Your task to perform on an android device: Play the last video I watched on Youtube Image 0: 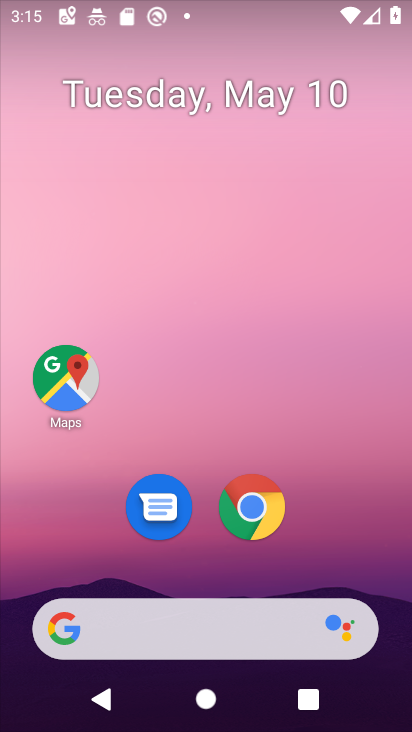
Step 0: drag from (206, 467) to (238, 245)
Your task to perform on an android device: Play the last video I watched on Youtube Image 1: 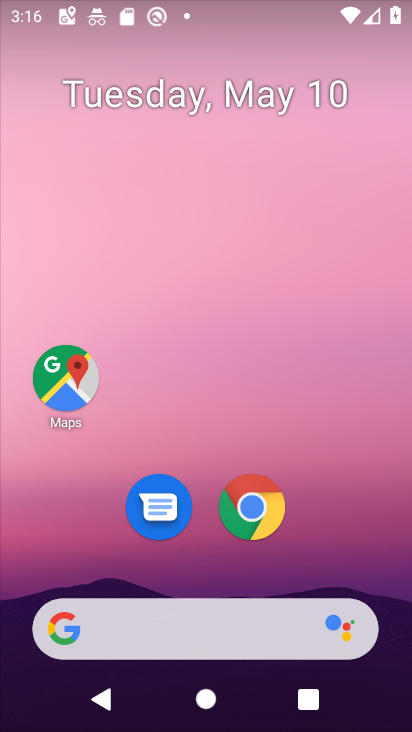
Step 1: drag from (211, 586) to (260, 142)
Your task to perform on an android device: Play the last video I watched on Youtube Image 2: 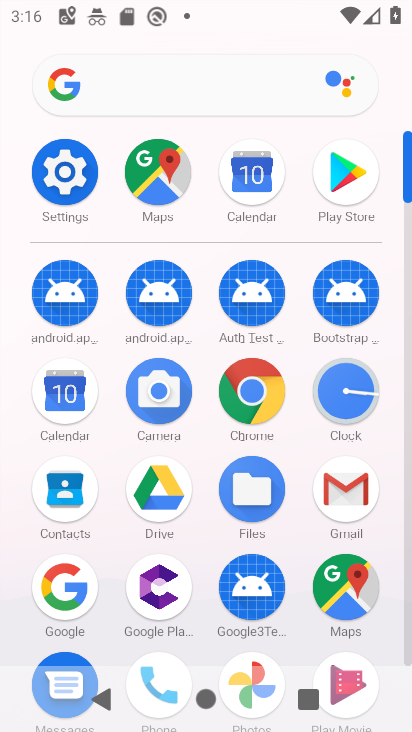
Step 2: drag from (294, 546) to (309, 236)
Your task to perform on an android device: Play the last video I watched on Youtube Image 3: 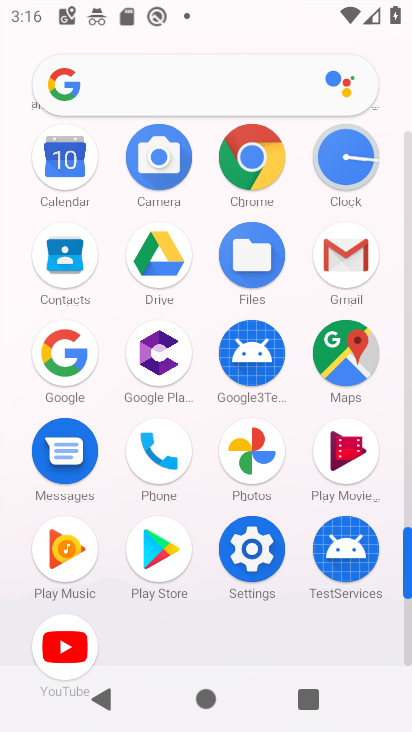
Step 3: click (61, 648)
Your task to perform on an android device: Play the last video I watched on Youtube Image 4: 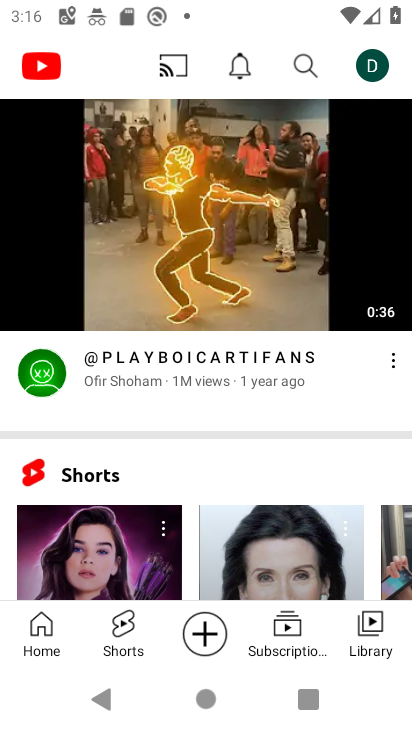
Step 4: click (299, 70)
Your task to perform on an android device: Play the last video I watched on Youtube Image 5: 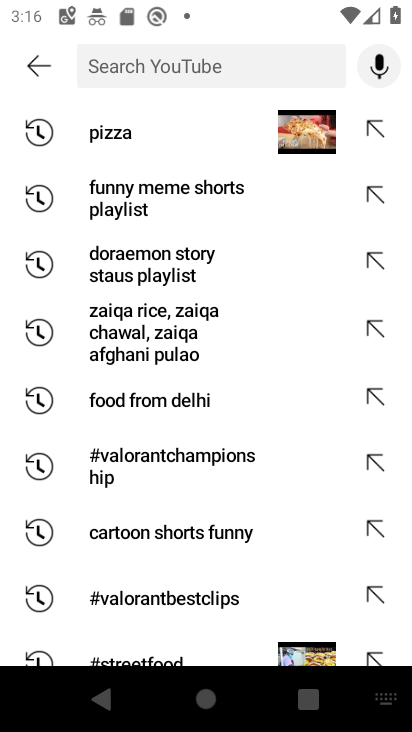
Step 5: click (109, 705)
Your task to perform on an android device: Play the last video I watched on Youtube Image 6: 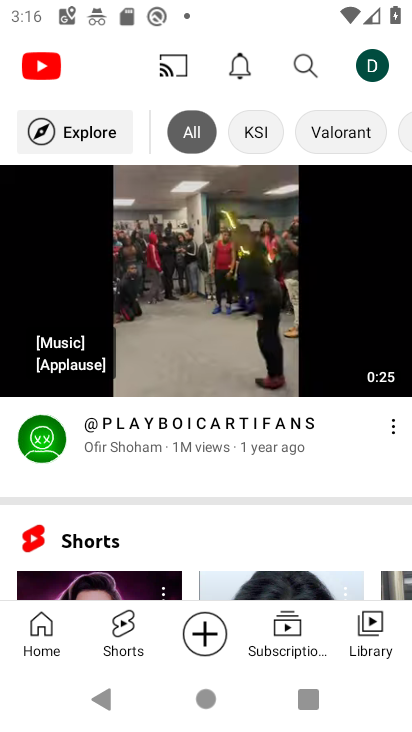
Step 6: click (371, 622)
Your task to perform on an android device: Play the last video I watched on Youtube Image 7: 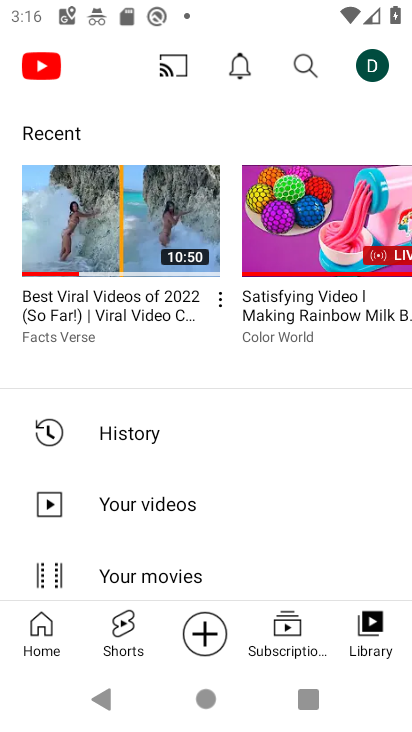
Step 7: click (115, 445)
Your task to perform on an android device: Play the last video I watched on Youtube Image 8: 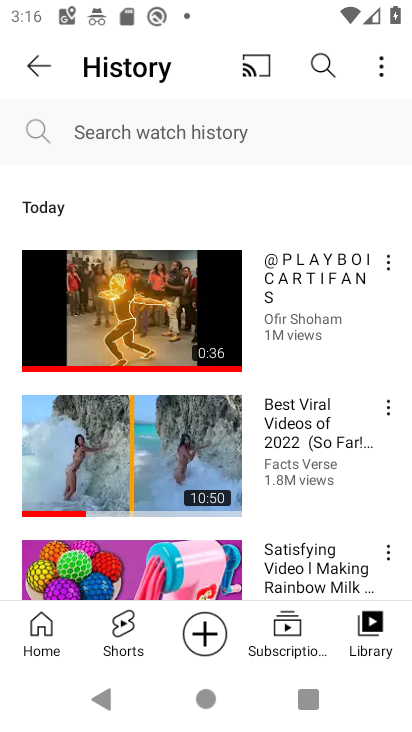
Step 8: task complete